Your task to perform on an android device: Go to display settings Image 0: 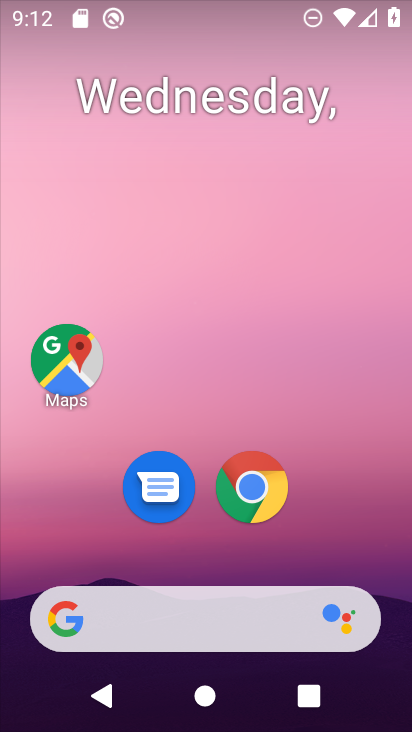
Step 0: drag from (204, 579) to (177, 62)
Your task to perform on an android device: Go to display settings Image 1: 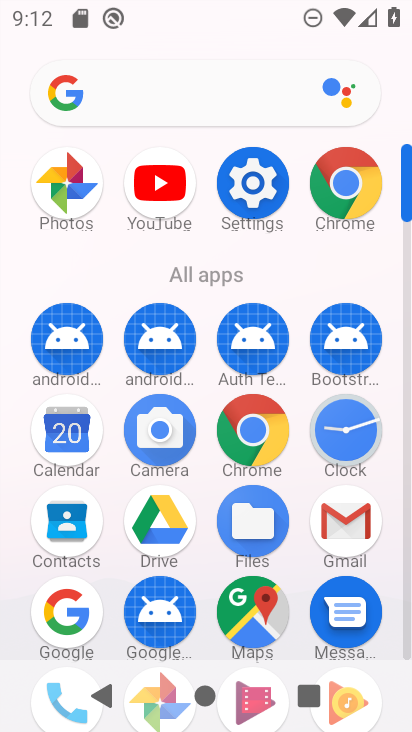
Step 1: click (237, 182)
Your task to perform on an android device: Go to display settings Image 2: 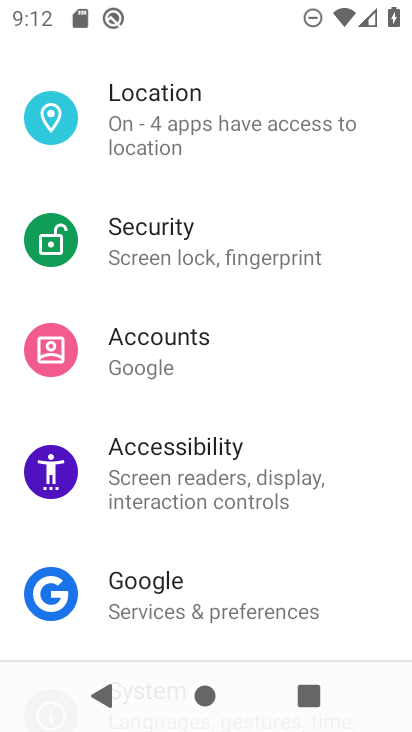
Step 2: drag from (215, 235) to (236, 532)
Your task to perform on an android device: Go to display settings Image 3: 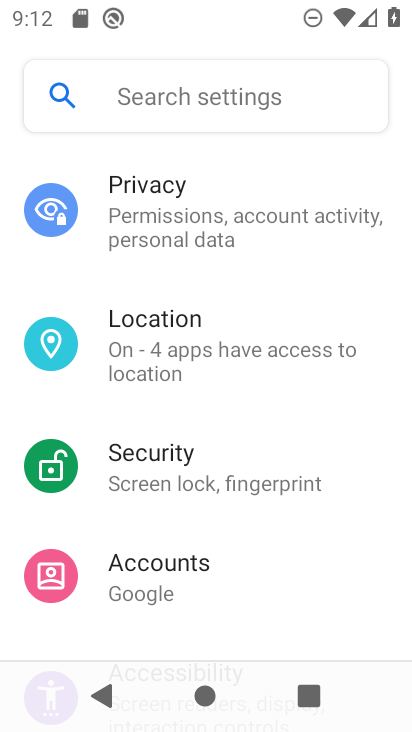
Step 3: drag from (209, 238) to (181, 595)
Your task to perform on an android device: Go to display settings Image 4: 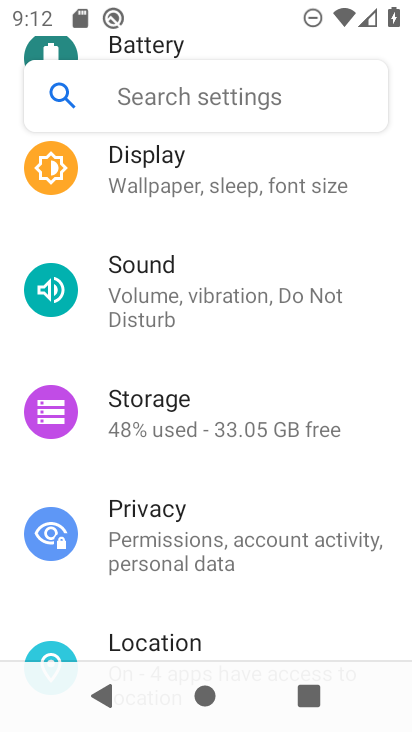
Step 4: click (146, 198)
Your task to perform on an android device: Go to display settings Image 5: 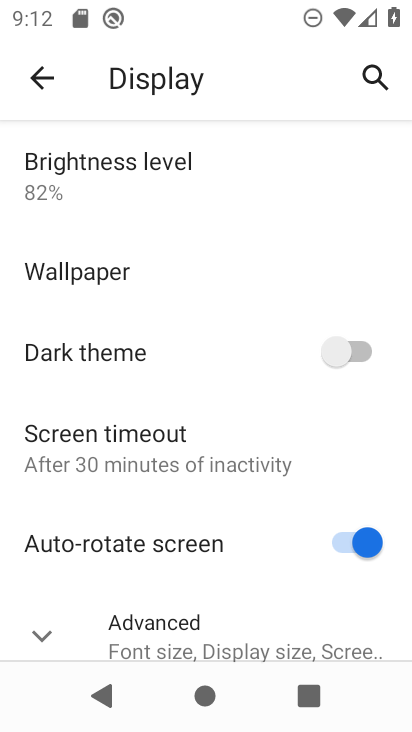
Step 5: drag from (149, 570) to (133, 47)
Your task to perform on an android device: Go to display settings Image 6: 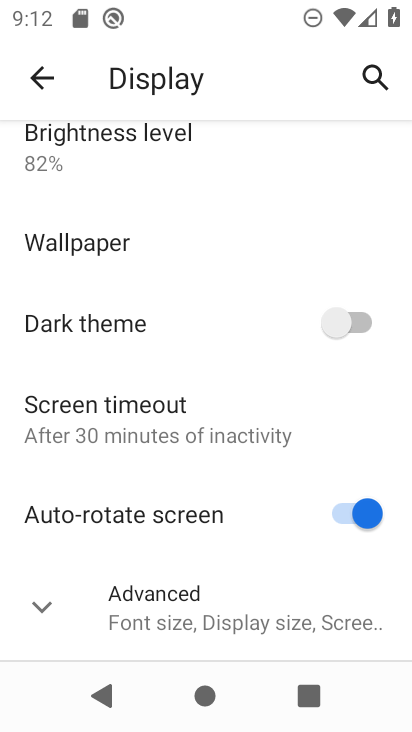
Step 6: click (113, 620)
Your task to perform on an android device: Go to display settings Image 7: 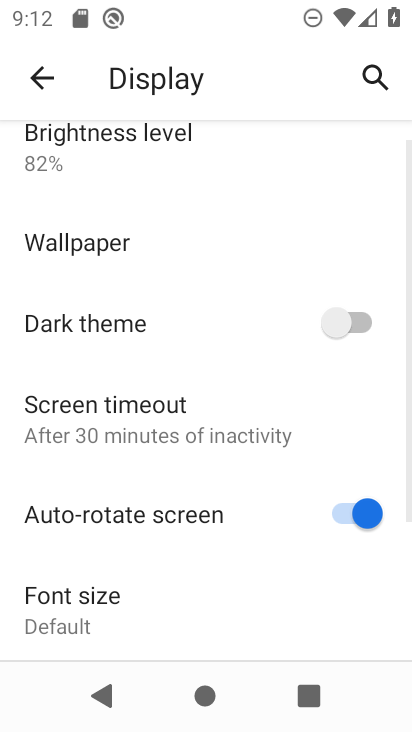
Step 7: task complete